Your task to perform on an android device: toggle notification dots Image 0: 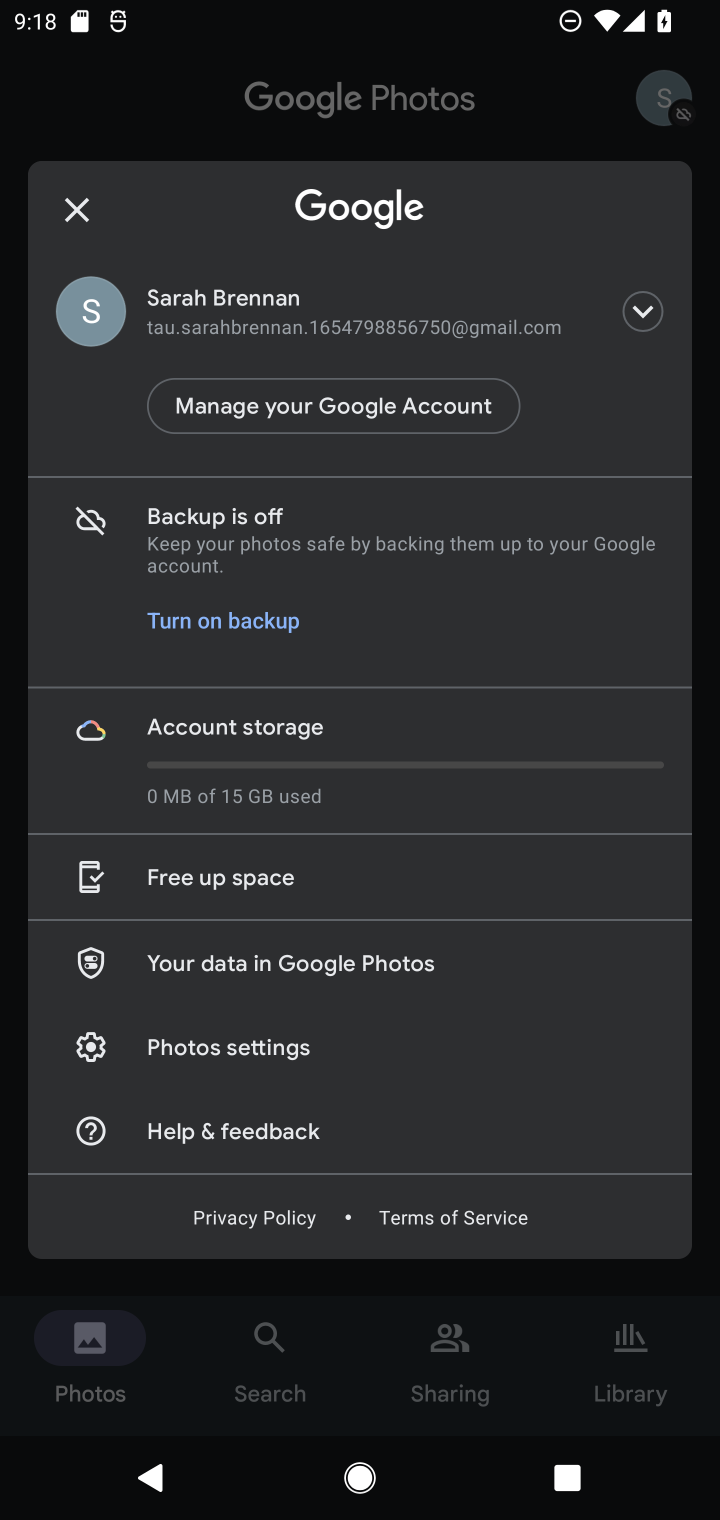
Step 0: task complete